Your task to perform on an android device: Open Wikipedia Image 0: 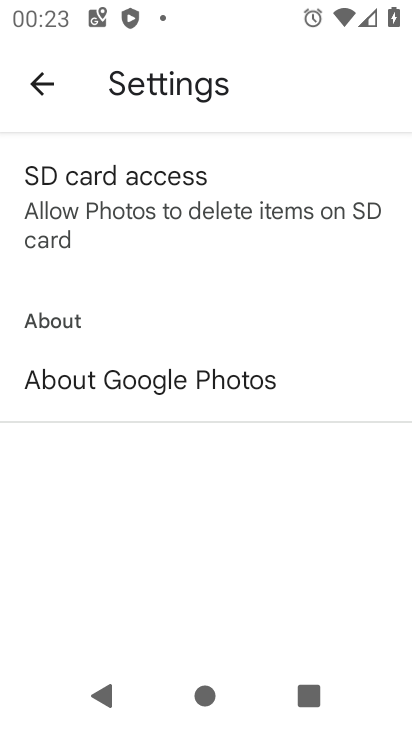
Step 0: press home button
Your task to perform on an android device: Open Wikipedia Image 1: 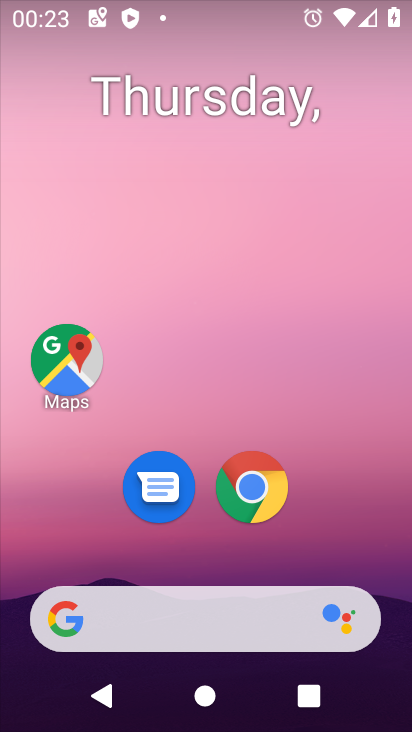
Step 1: click (253, 498)
Your task to perform on an android device: Open Wikipedia Image 2: 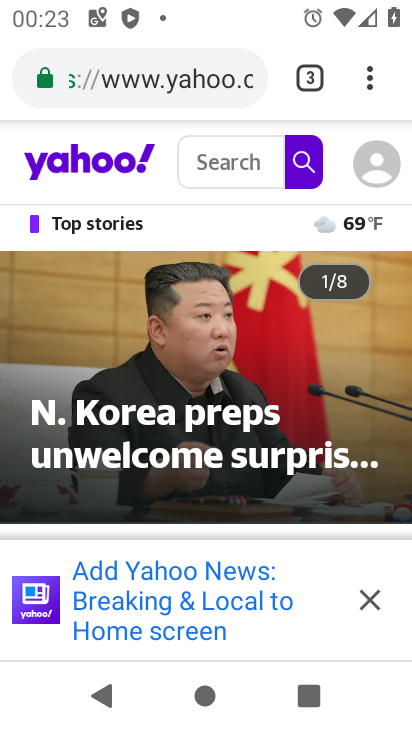
Step 2: click (148, 86)
Your task to perform on an android device: Open Wikipedia Image 3: 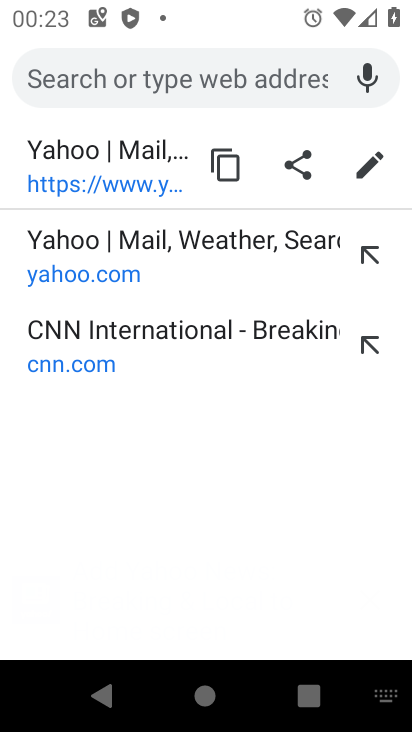
Step 3: type "wikipedia"
Your task to perform on an android device: Open Wikipedia Image 4: 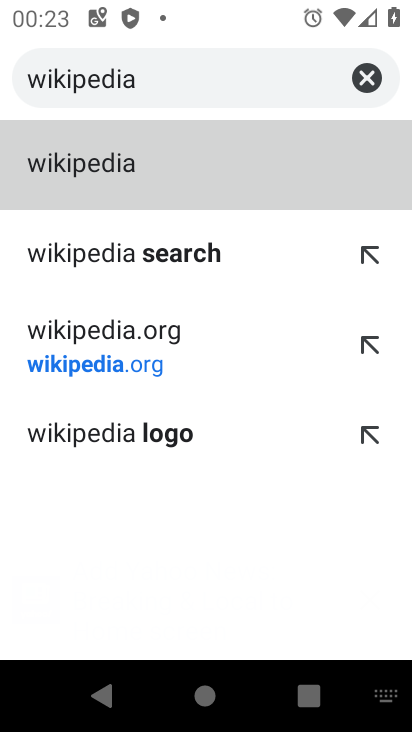
Step 4: click (166, 352)
Your task to perform on an android device: Open Wikipedia Image 5: 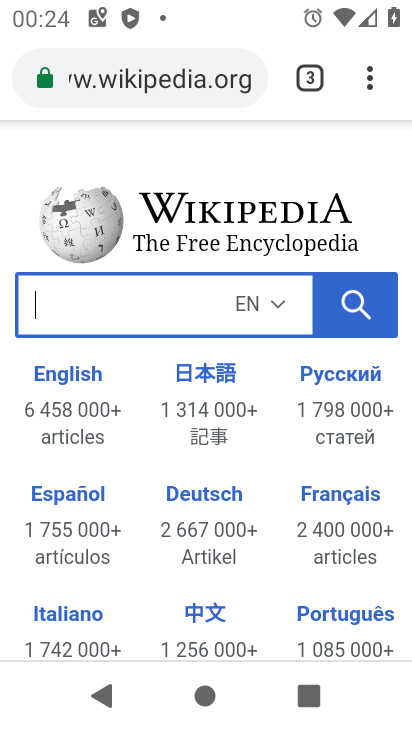
Step 5: task complete